Your task to perform on an android device: set default search engine in the chrome app Image 0: 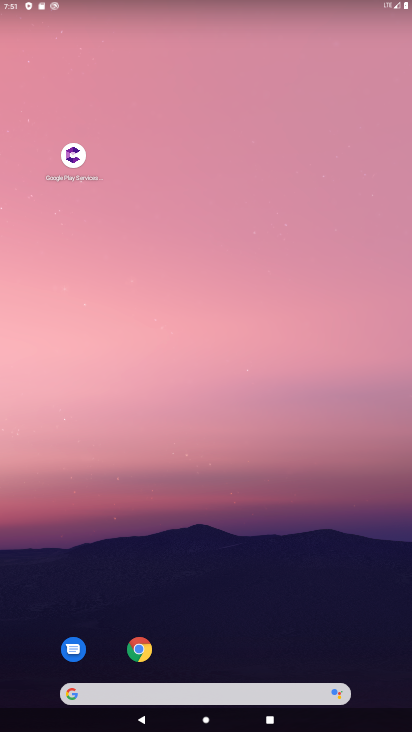
Step 0: click (142, 649)
Your task to perform on an android device: set default search engine in the chrome app Image 1: 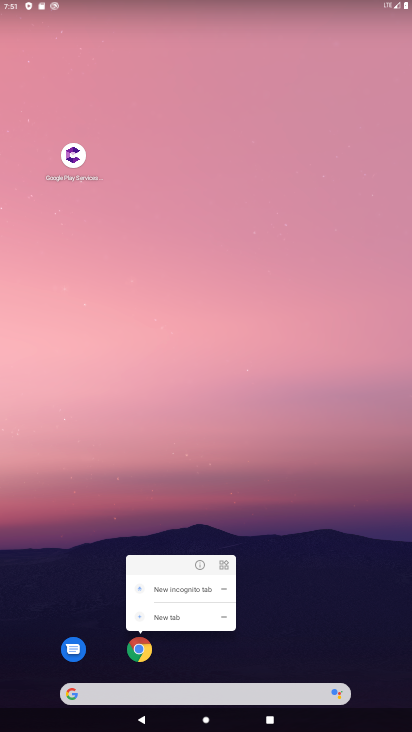
Step 1: click (142, 649)
Your task to perform on an android device: set default search engine in the chrome app Image 2: 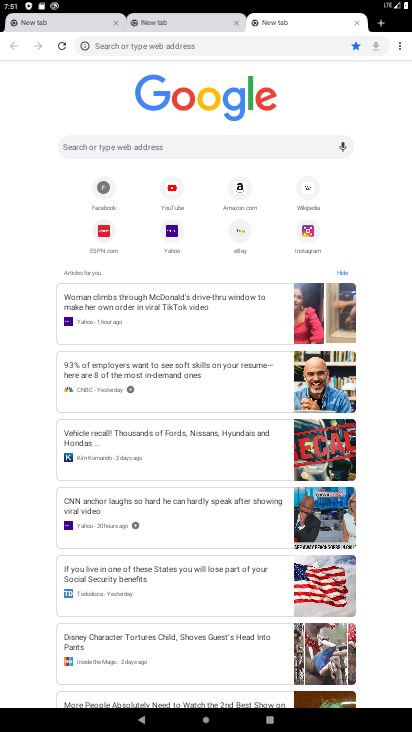
Step 2: click (398, 50)
Your task to perform on an android device: set default search engine in the chrome app Image 3: 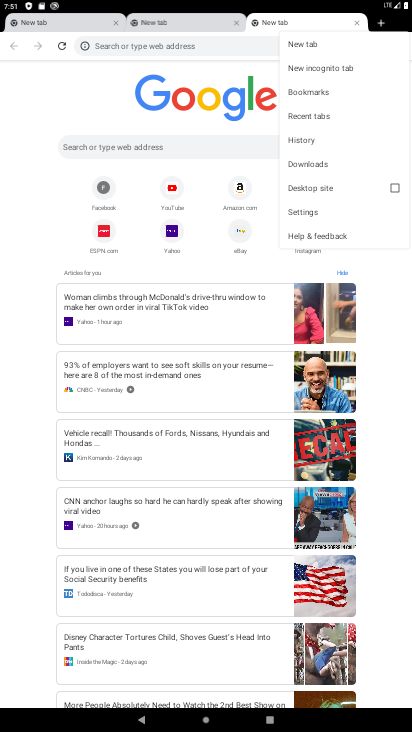
Step 3: click (312, 212)
Your task to perform on an android device: set default search engine in the chrome app Image 4: 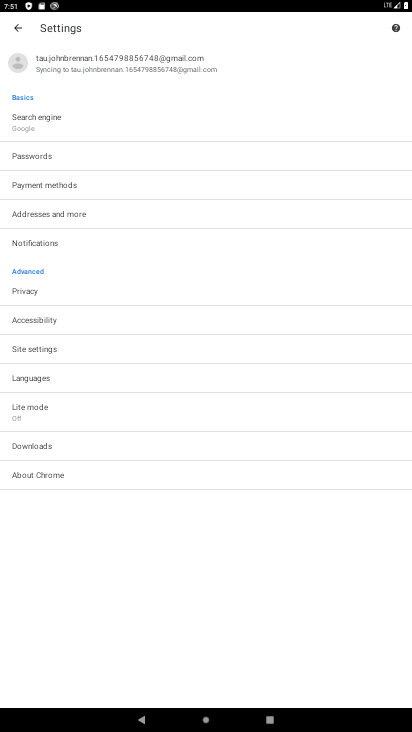
Step 4: click (46, 127)
Your task to perform on an android device: set default search engine in the chrome app Image 5: 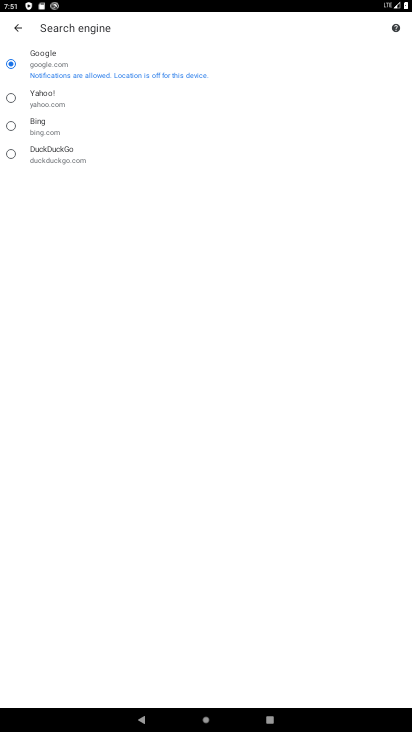
Step 5: task complete